Your task to perform on an android device: Open sound settings Image 0: 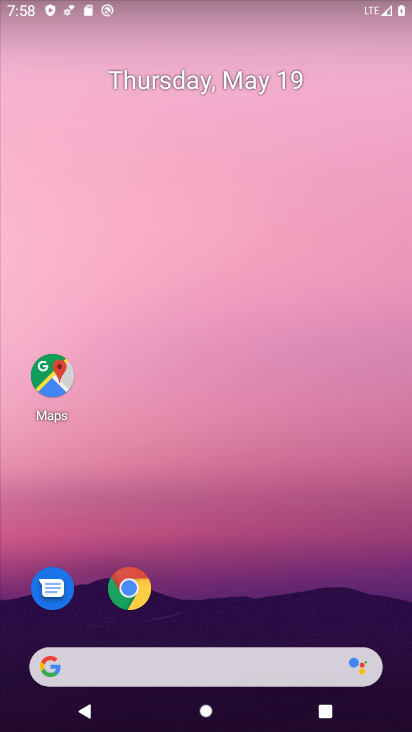
Step 0: drag from (216, 615) to (282, 217)
Your task to perform on an android device: Open sound settings Image 1: 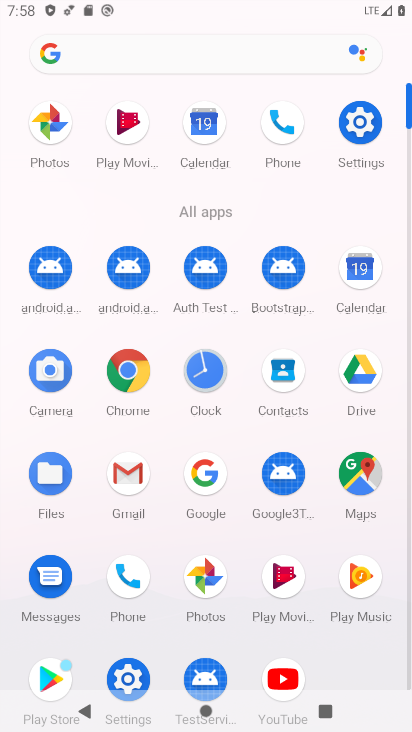
Step 1: click (361, 111)
Your task to perform on an android device: Open sound settings Image 2: 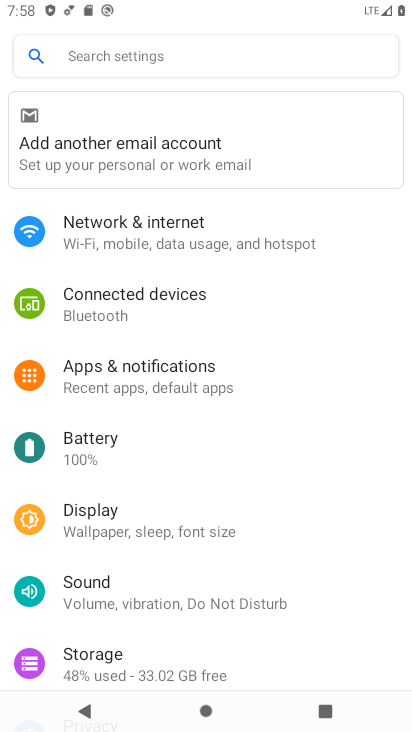
Step 2: click (96, 584)
Your task to perform on an android device: Open sound settings Image 3: 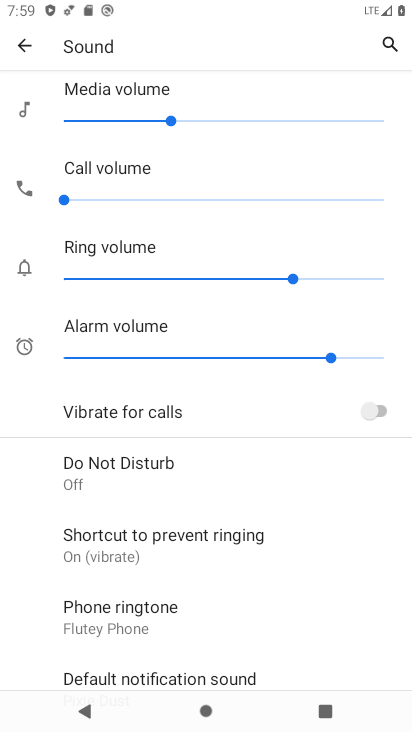
Step 3: task complete